Your task to perform on an android device: Open the web browser Image 0: 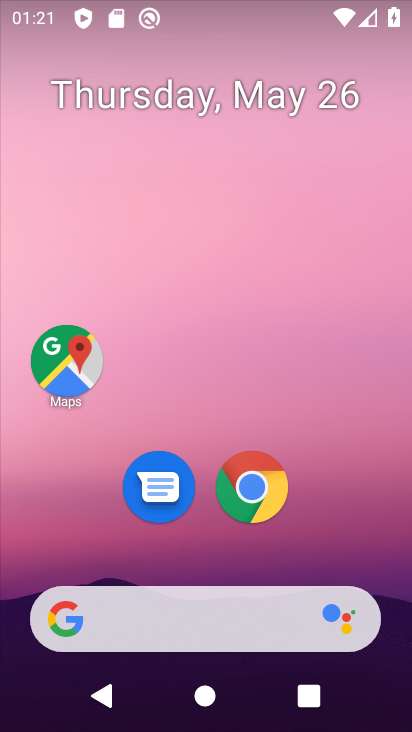
Step 0: click (245, 499)
Your task to perform on an android device: Open the web browser Image 1: 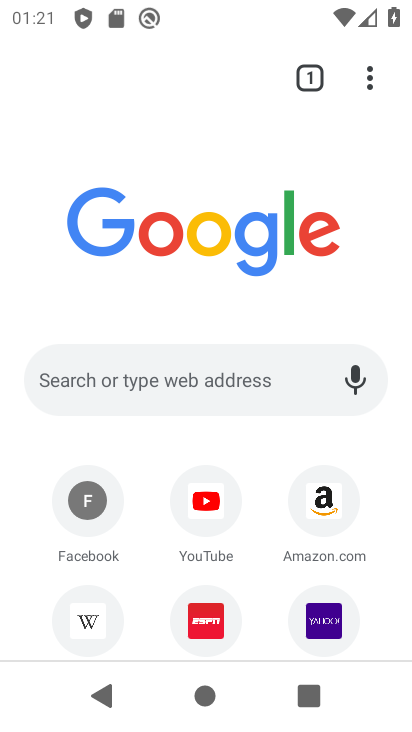
Step 1: task complete